Your task to perform on an android device: turn notification dots on Image 0: 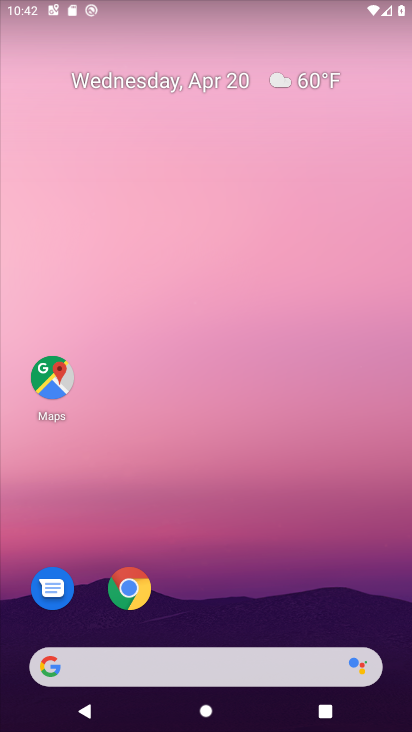
Step 0: drag from (238, 590) to (242, 7)
Your task to perform on an android device: turn notification dots on Image 1: 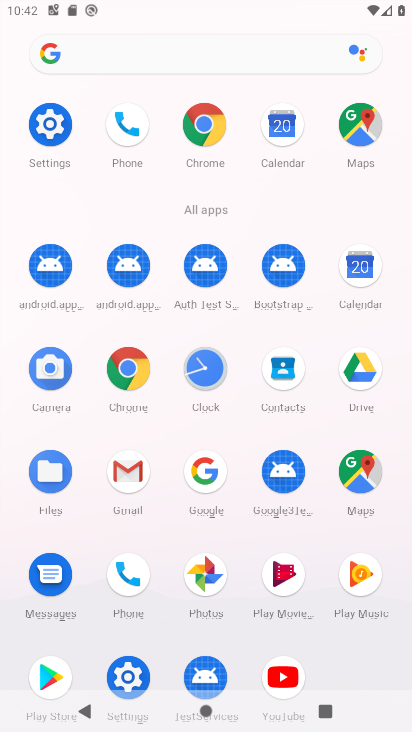
Step 1: click (50, 120)
Your task to perform on an android device: turn notification dots on Image 2: 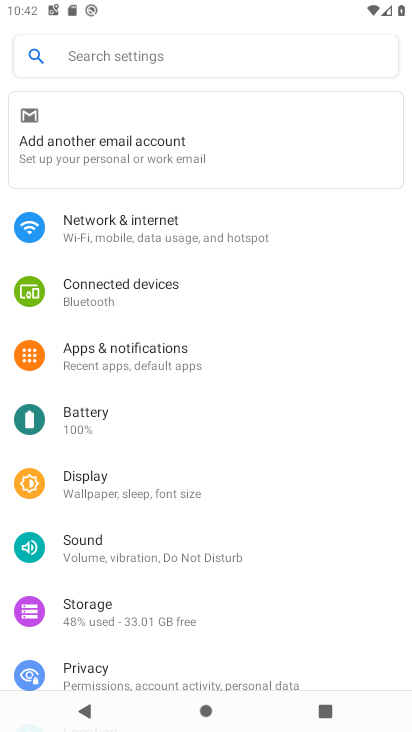
Step 2: click (135, 342)
Your task to perform on an android device: turn notification dots on Image 3: 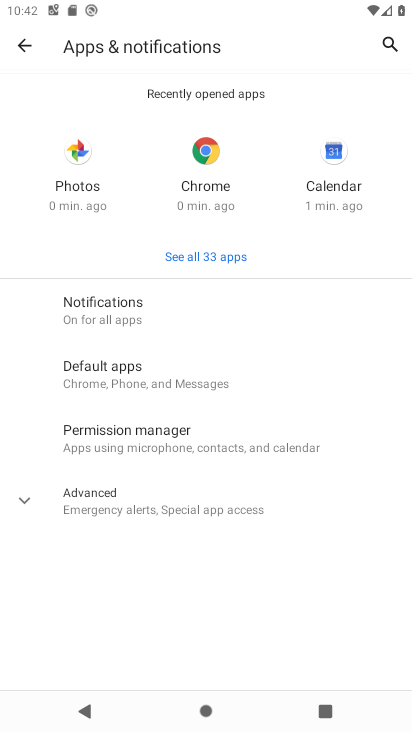
Step 3: click (87, 307)
Your task to perform on an android device: turn notification dots on Image 4: 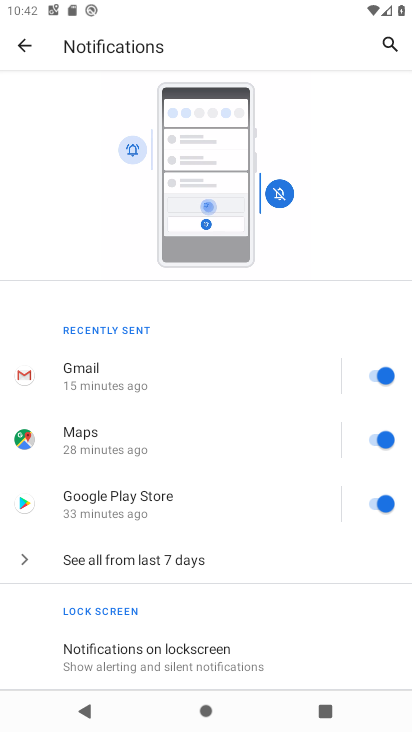
Step 4: drag from (231, 561) to (250, 182)
Your task to perform on an android device: turn notification dots on Image 5: 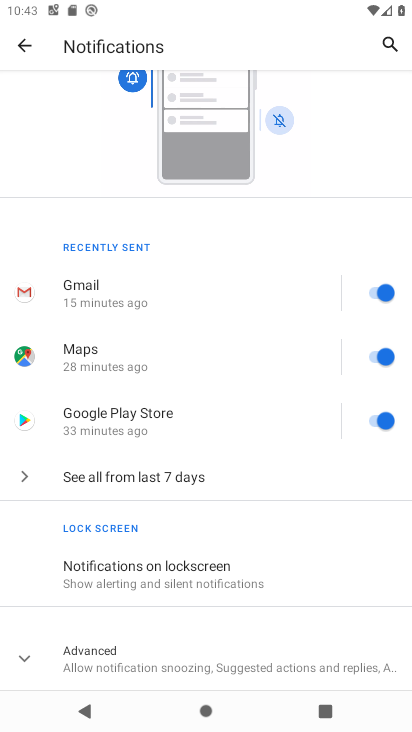
Step 5: drag from (220, 606) to (211, 429)
Your task to perform on an android device: turn notification dots on Image 6: 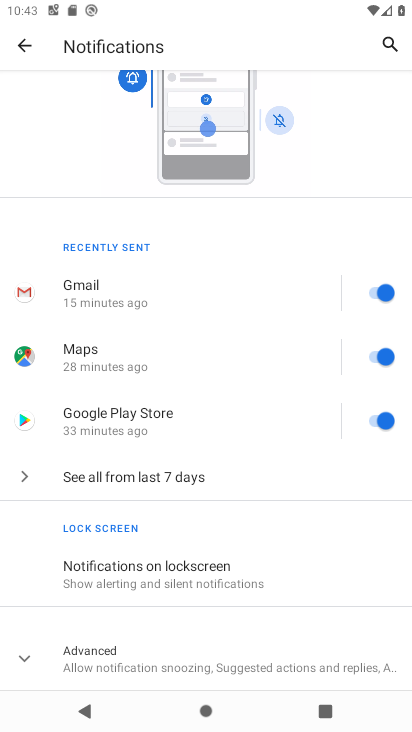
Step 6: click (40, 661)
Your task to perform on an android device: turn notification dots on Image 7: 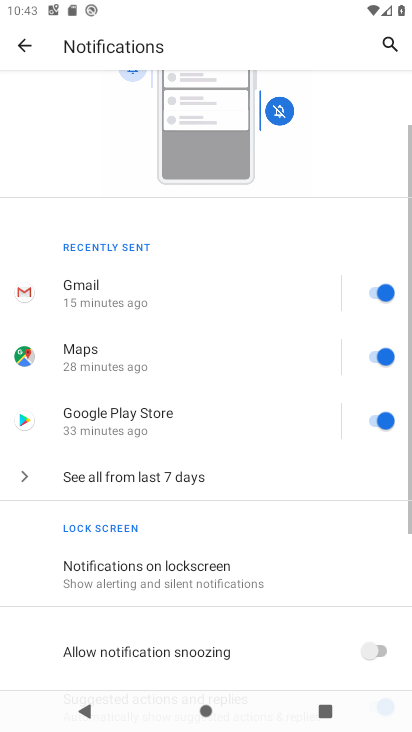
Step 7: task complete